Your task to perform on an android device: What's on my calendar today? Image 0: 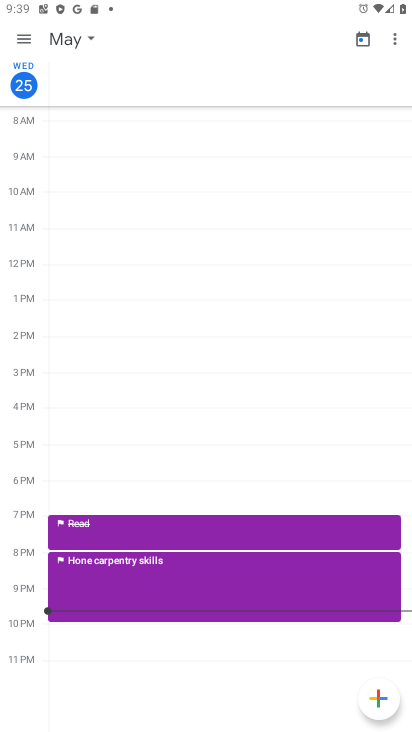
Step 0: press home button
Your task to perform on an android device: What's on my calendar today? Image 1: 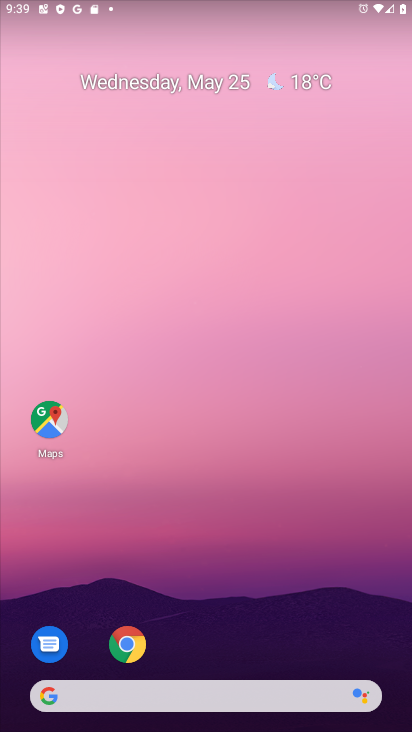
Step 1: drag from (214, 660) to (248, 93)
Your task to perform on an android device: What's on my calendar today? Image 2: 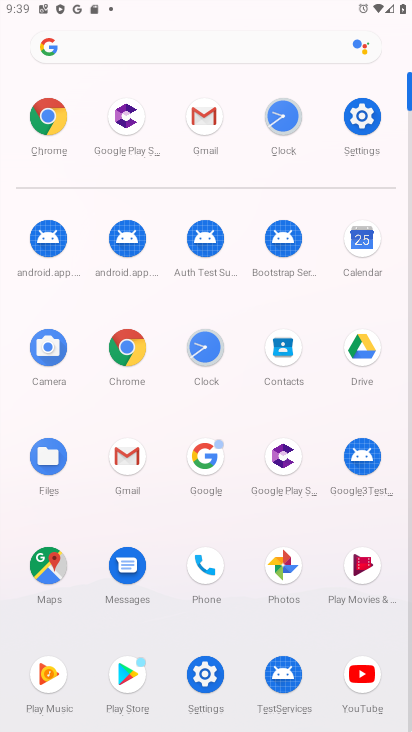
Step 2: click (364, 229)
Your task to perform on an android device: What's on my calendar today? Image 3: 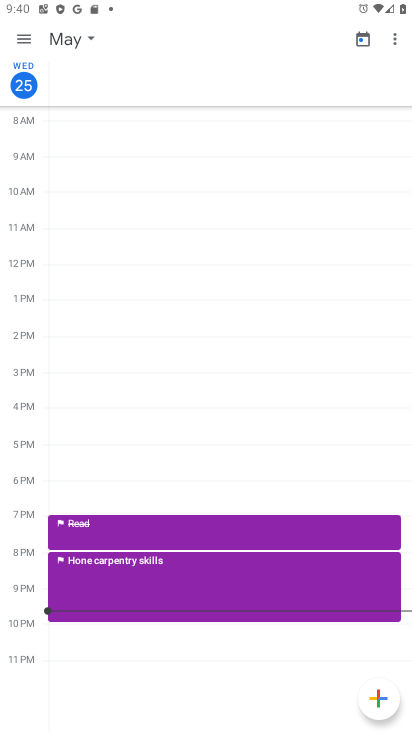
Step 3: task complete